Your task to perform on an android device: Open Google Chrome and open the bookmarks view Image 0: 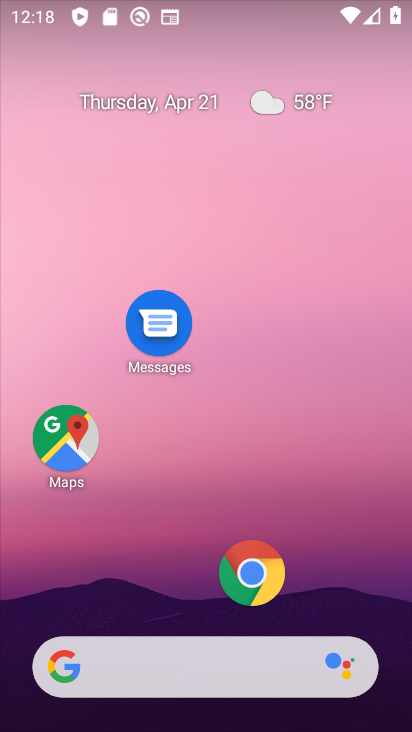
Step 0: click (254, 572)
Your task to perform on an android device: Open Google Chrome and open the bookmarks view Image 1: 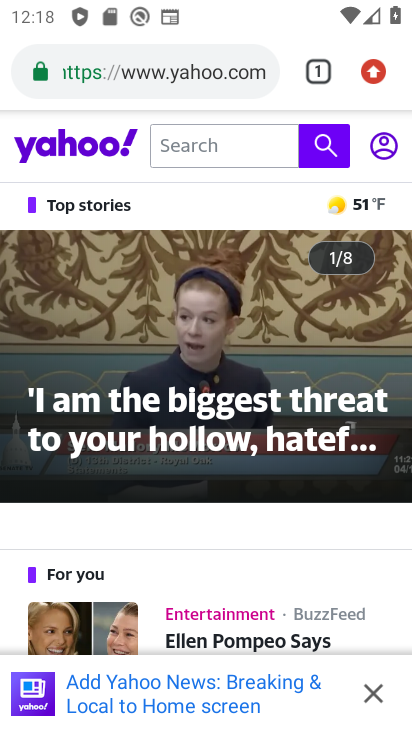
Step 1: click (372, 76)
Your task to perform on an android device: Open Google Chrome and open the bookmarks view Image 2: 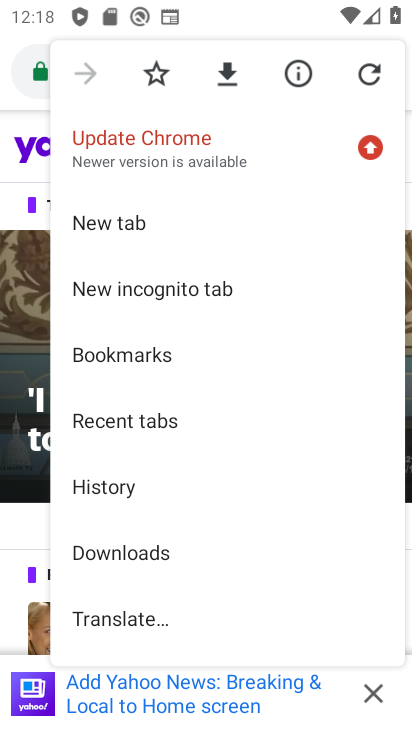
Step 2: click (158, 351)
Your task to perform on an android device: Open Google Chrome and open the bookmarks view Image 3: 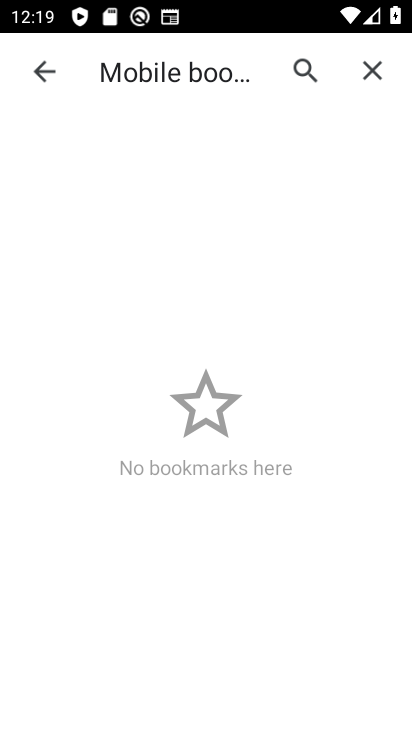
Step 3: task complete